Your task to perform on an android device: open app "TextNow: Call + Text Unlimited" (install if not already installed), go to login, and select forgot password Image 0: 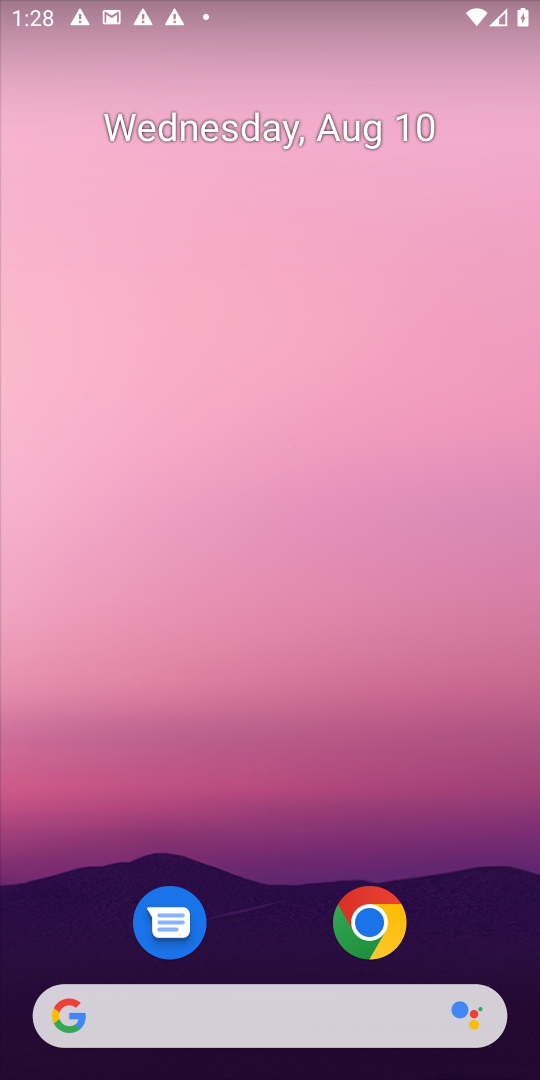
Step 0: drag from (248, 867) to (279, 134)
Your task to perform on an android device: open app "TextNow: Call + Text Unlimited" (install if not already installed), go to login, and select forgot password Image 1: 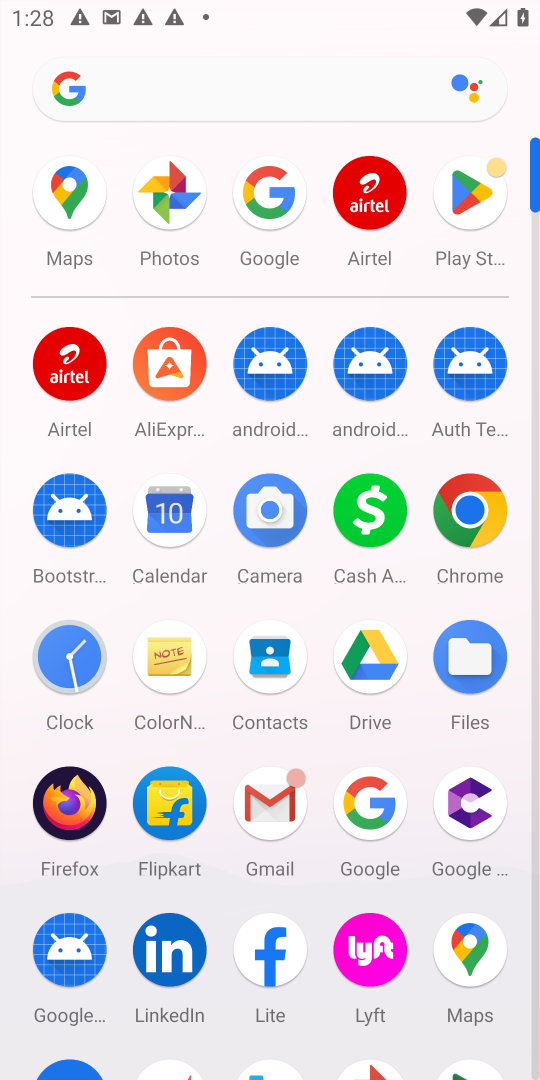
Step 1: click (466, 209)
Your task to perform on an android device: open app "TextNow: Call + Text Unlimited" (install if not already installed), go to login, and select forgot password Image 2: 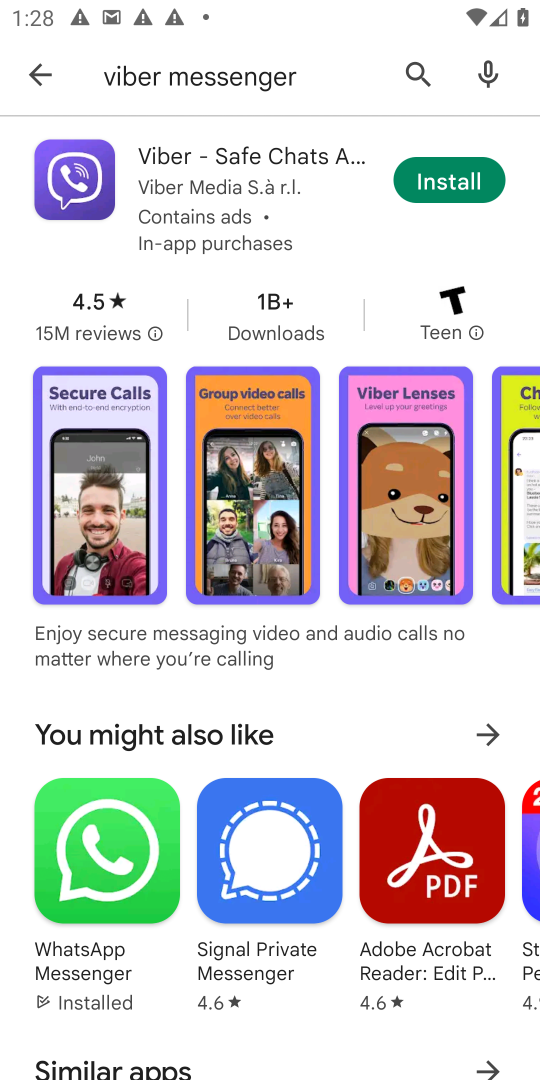
Step 2: click (50, 77)
Your task to perform on an android device: open app "TextNow: Call + Text Unlimited" (install if not already installed), go to login, and select forgot password Image 3: 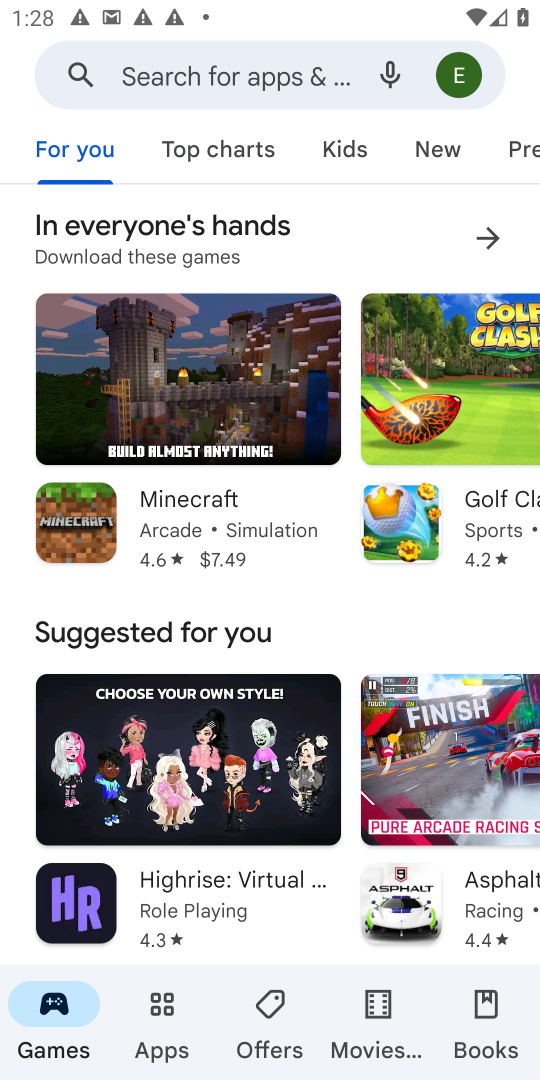
Step 3: click (224, 92)
Your task to perform on an android device: open app "TextNow: Call + Text Unlimited" (install if not already installed), go to login, and select forgot password Image 4: 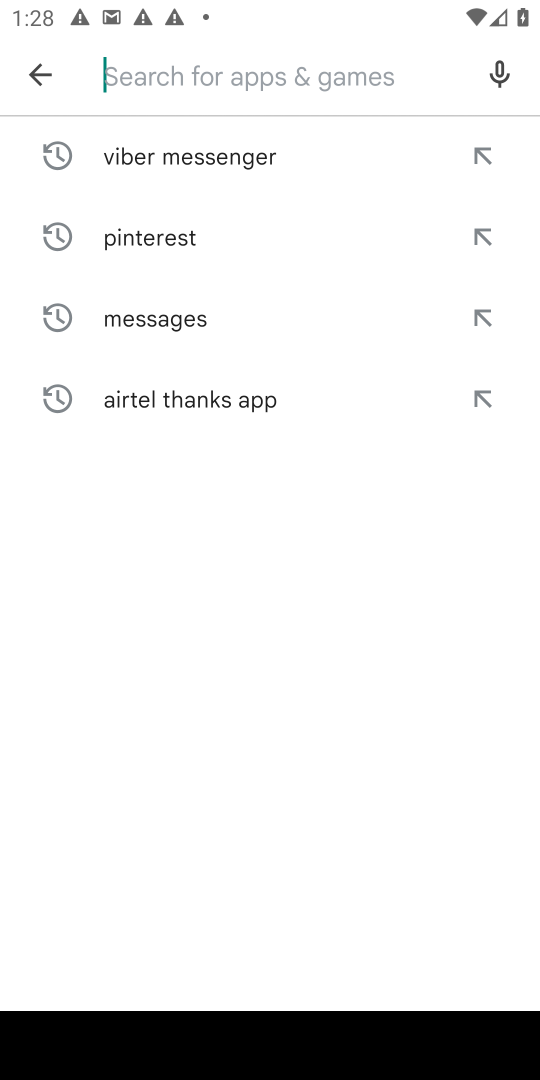
Step 4: type "TextNow: Call + Text Unlimited"
Your task to perform on an android device: open app "TextNow: Call + Text Unlimited" (install if not already installed), go to login, and select forgot password Image 5: 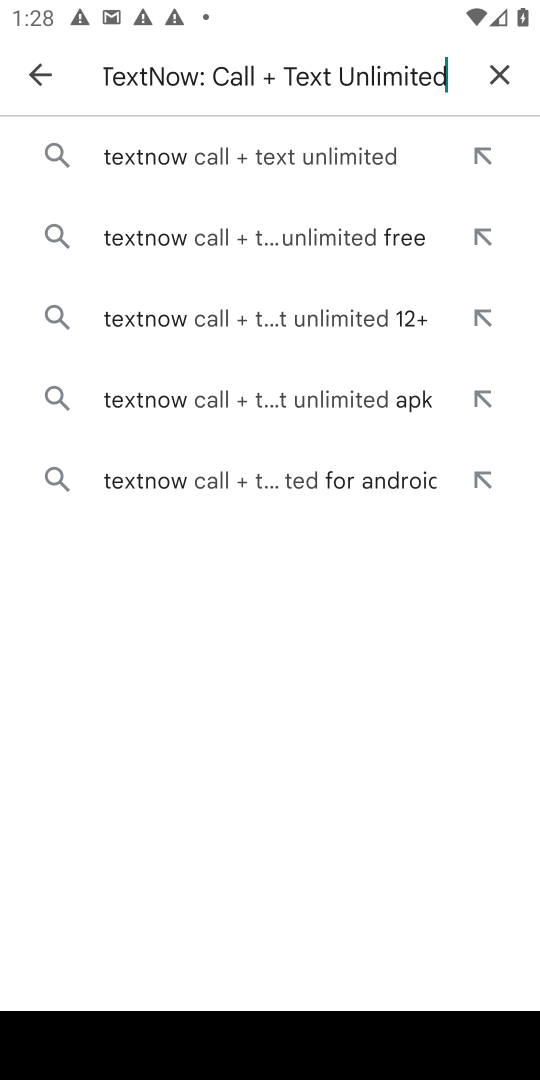
Step 5: click (250, 154)
Your task to perform on an android device: open app "TextNow: Call + Text Unlimited" (install if not already installed), go to login, and select forgot password Image 6: 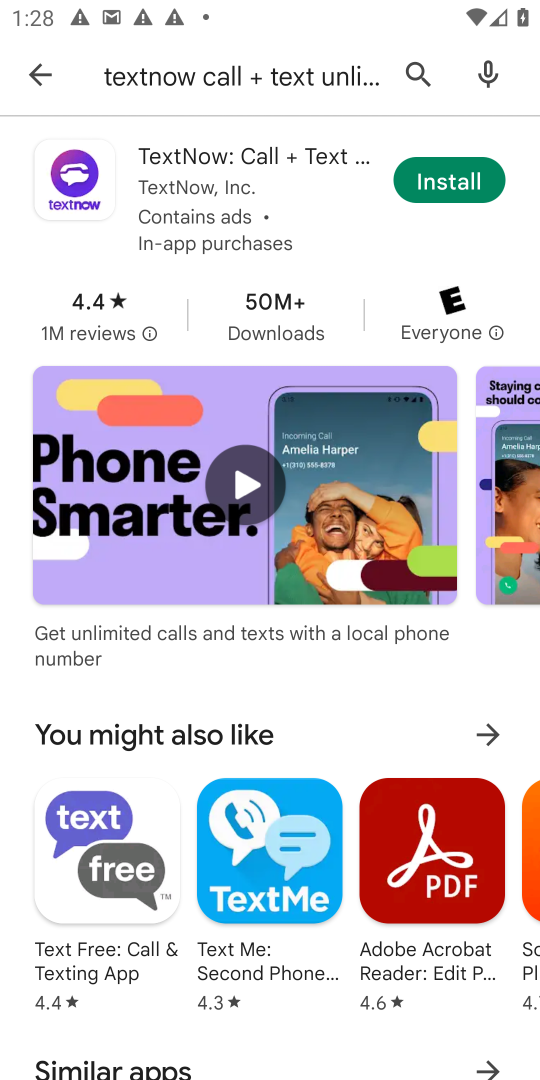
Step 6: click (442, 185)
Your task to perform on an android device: open app "TextNow: Call + Text Unlimited" (install if not already installed), go to login, and select forgot password Image 7: 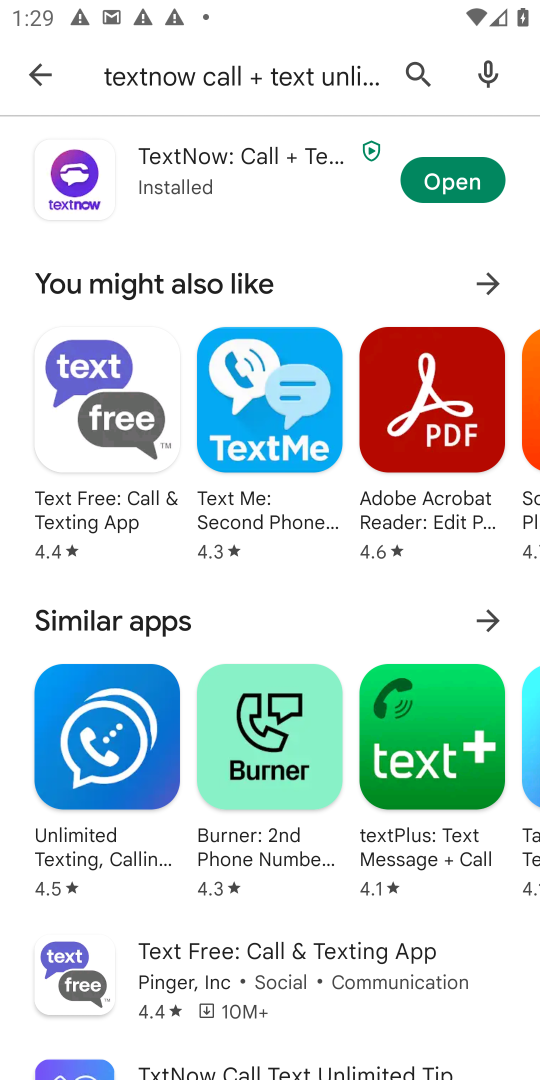
Step 7: click (451, 177)
Your task to perform on an android device: open app "TextNow: Call + Text Unlimited" (install if not already installed), go to login, and select forgot password Image 8: 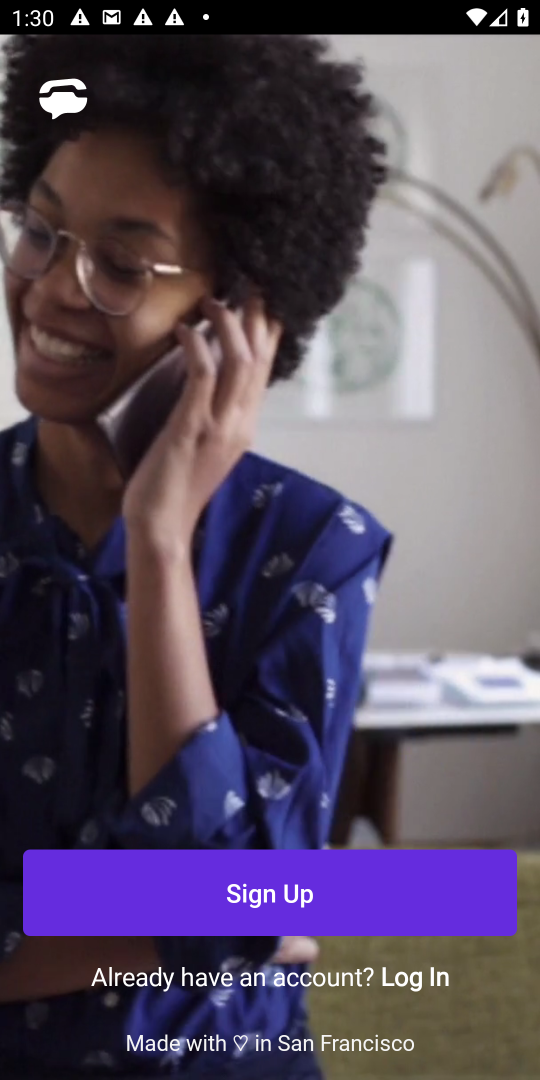
Step 8: click (411, 984)
Your task to perform on an android device: open app "TextNow: Call + Text Unlimited" (install if not already installed), go to login, and select forgot password Image 9: 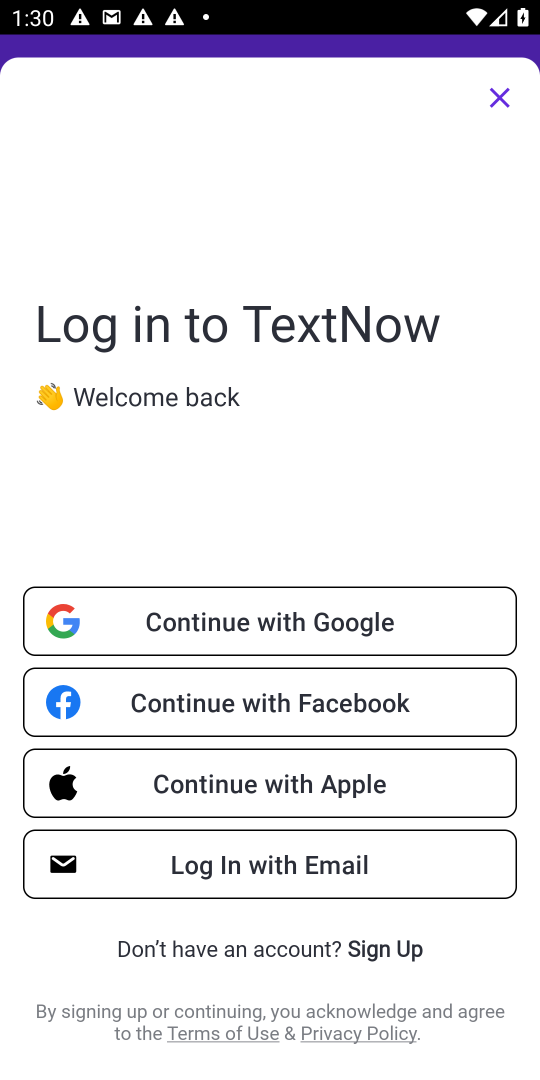
Step 9: click (246, 882)
Your task to perform on an android device: open app "TextNow: Call + Text Unlimited" (install if not already installed), go to login, and select forgot password Image 10: 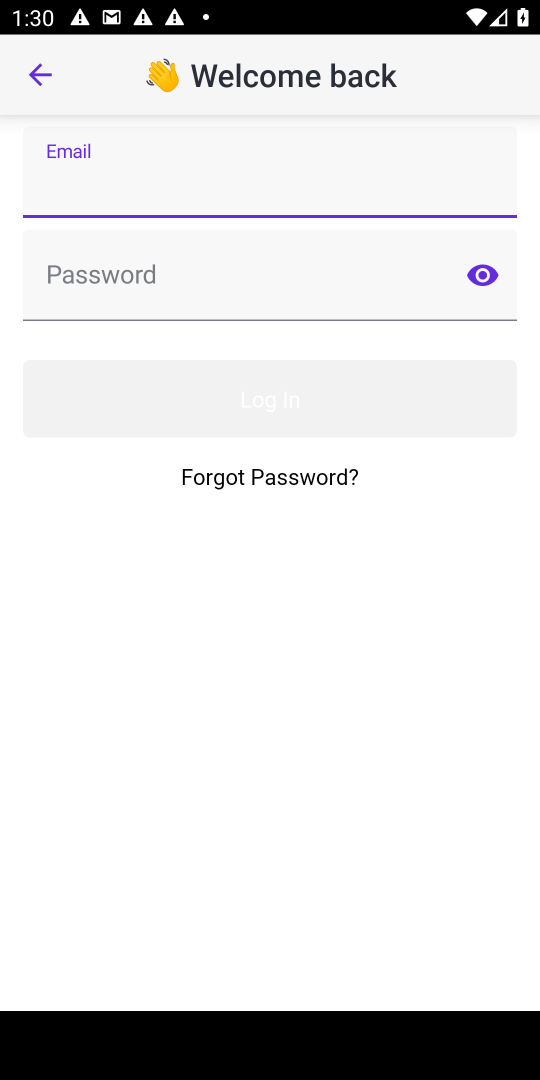
Step 10: click (288, 467)
Your task to perform on an android device: open app "TextNow: Call + Text Unlimited" (install if not already installed), go to login, and select forgot password Image 11: 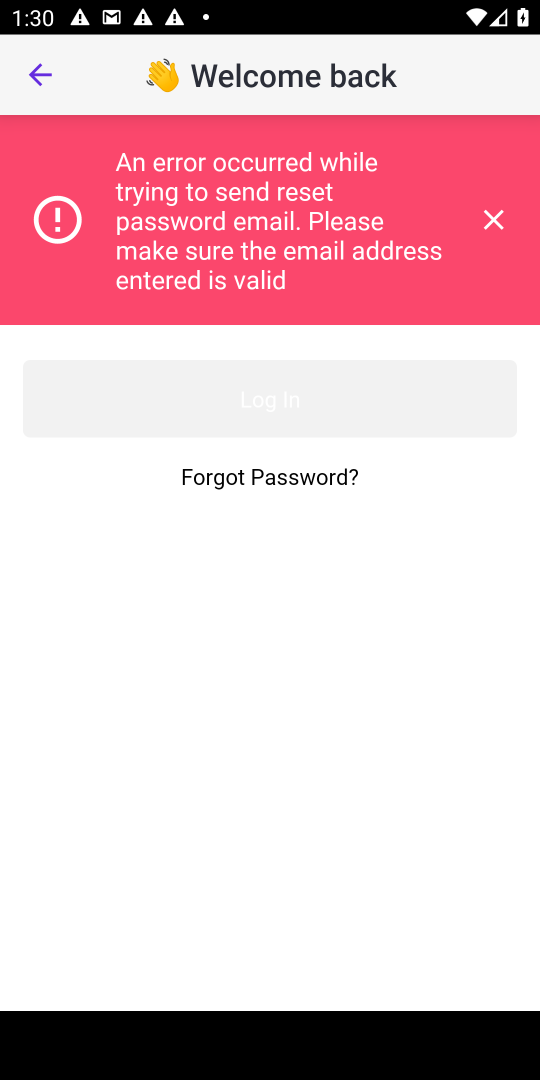
Step 11: task complete